Your task to perform on an android device: Go to Yahoo.com Image 0: 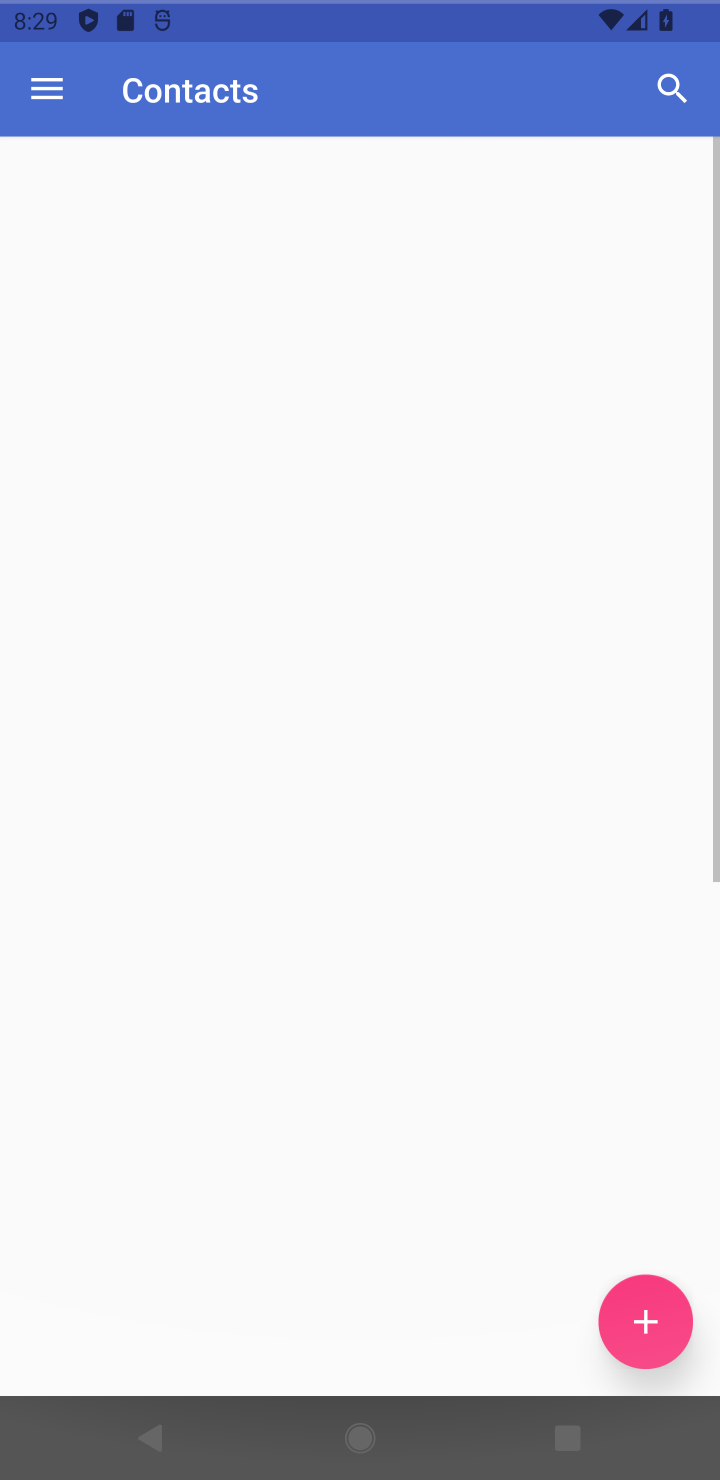
Step 0: press home button
Your task to perform on an android device: Go to Yahoo.com Image 1: 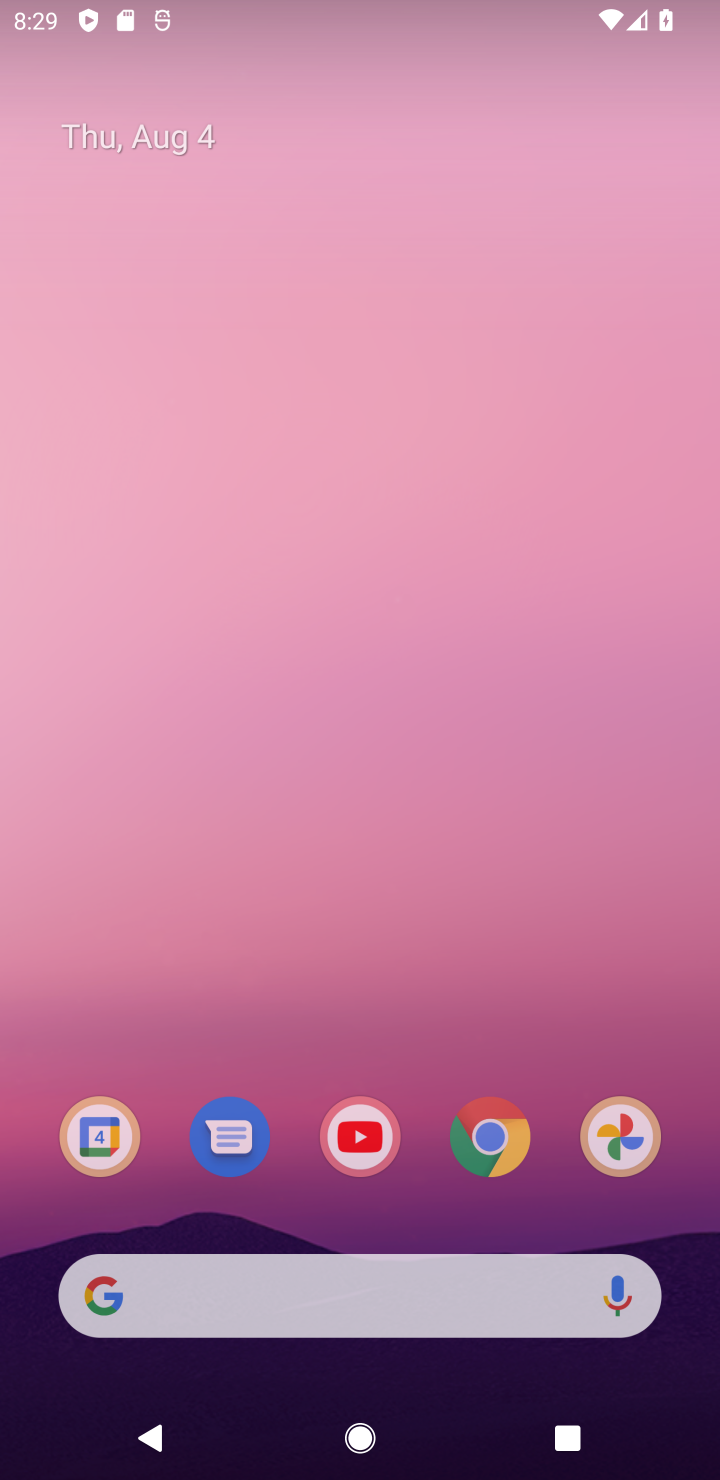
Step 1: press home button
Your task to perform on an android device: Go to Yahoo.com Image 2: 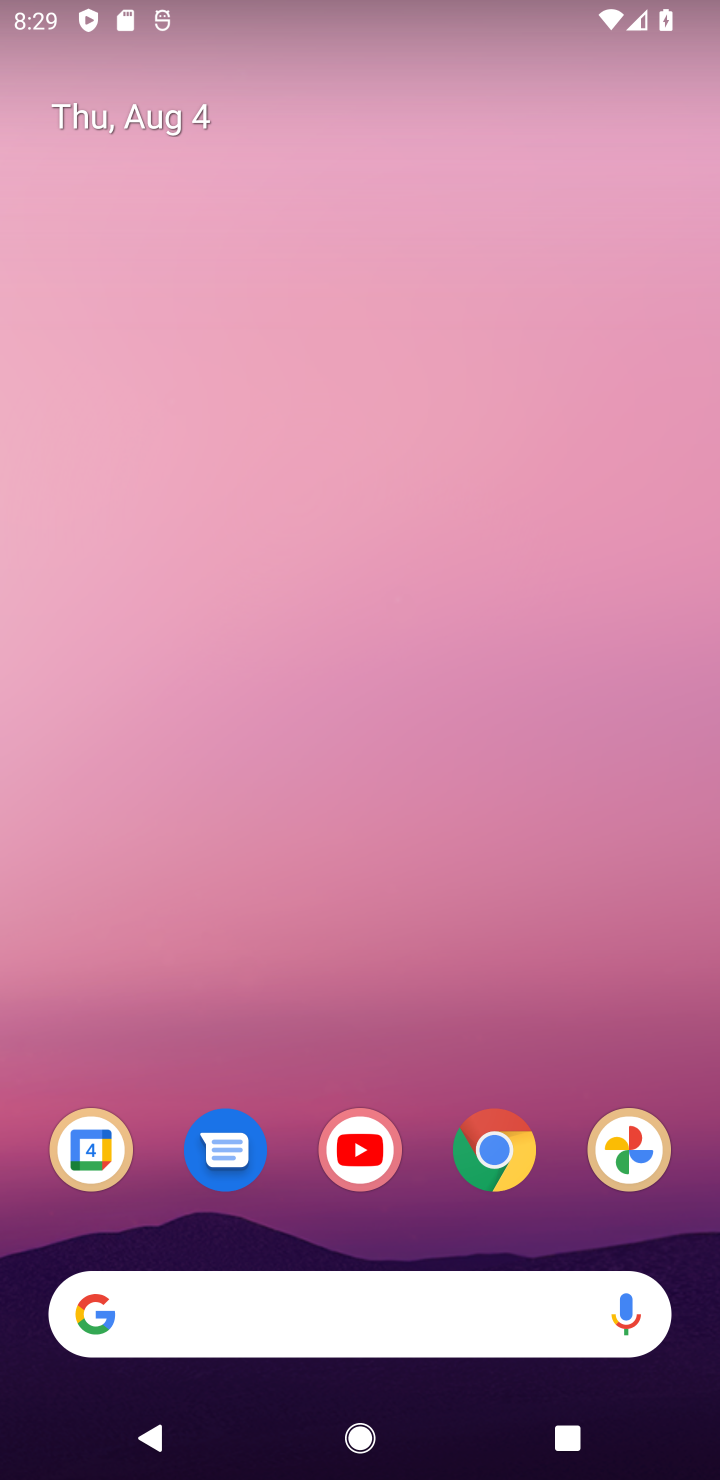
Step 2: drag from (404, 1203) to (370, 4)
Your task to perform on an android device: Go to Yahoo.com Image 3: 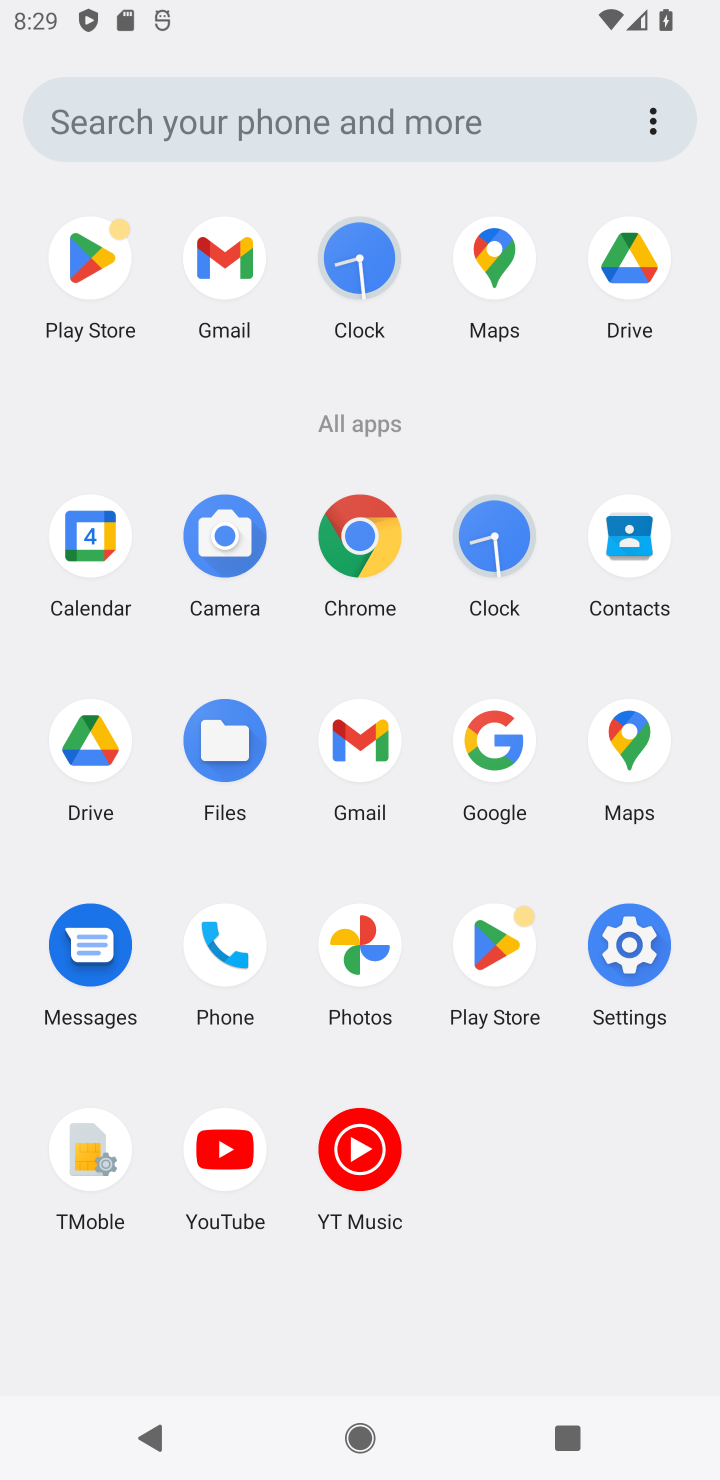
Step 3: click (342, 557)
Your task to perform on an android device: Go to Yahoo.com Image 4: 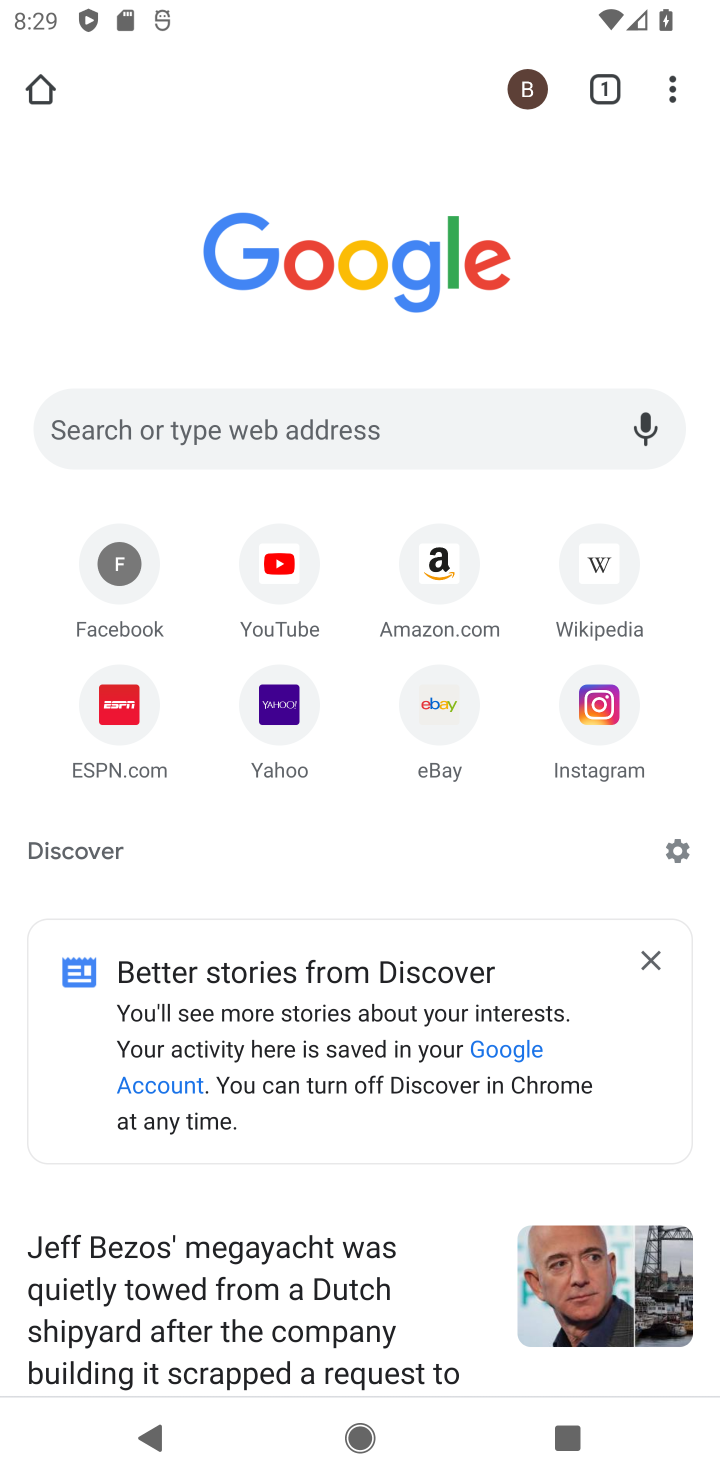
Step 4: click (265, 732)
Your task to perform on an android device: Go to Yahoo.com Image 5: 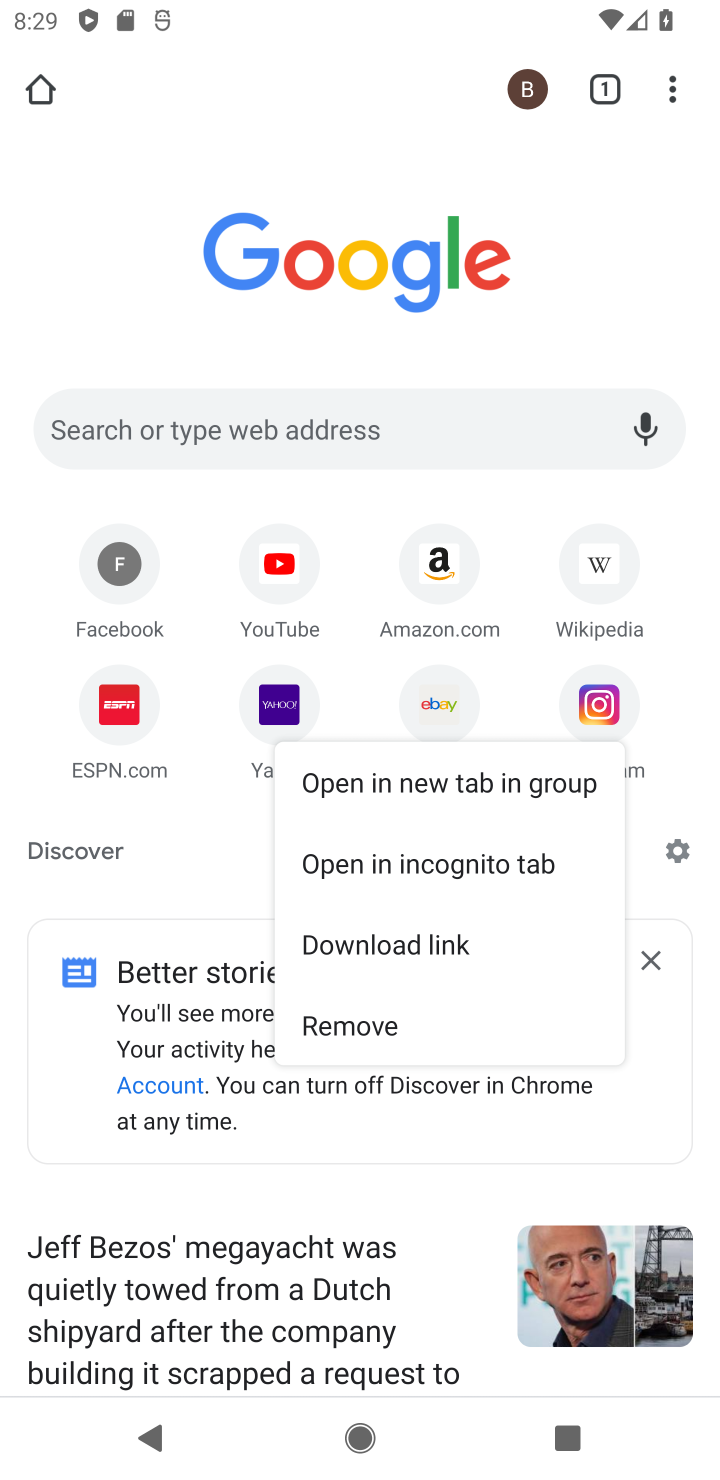
Step 5: click (268, 691)
Your task to perform on an android device: Go to Yahoo.com Image 6: 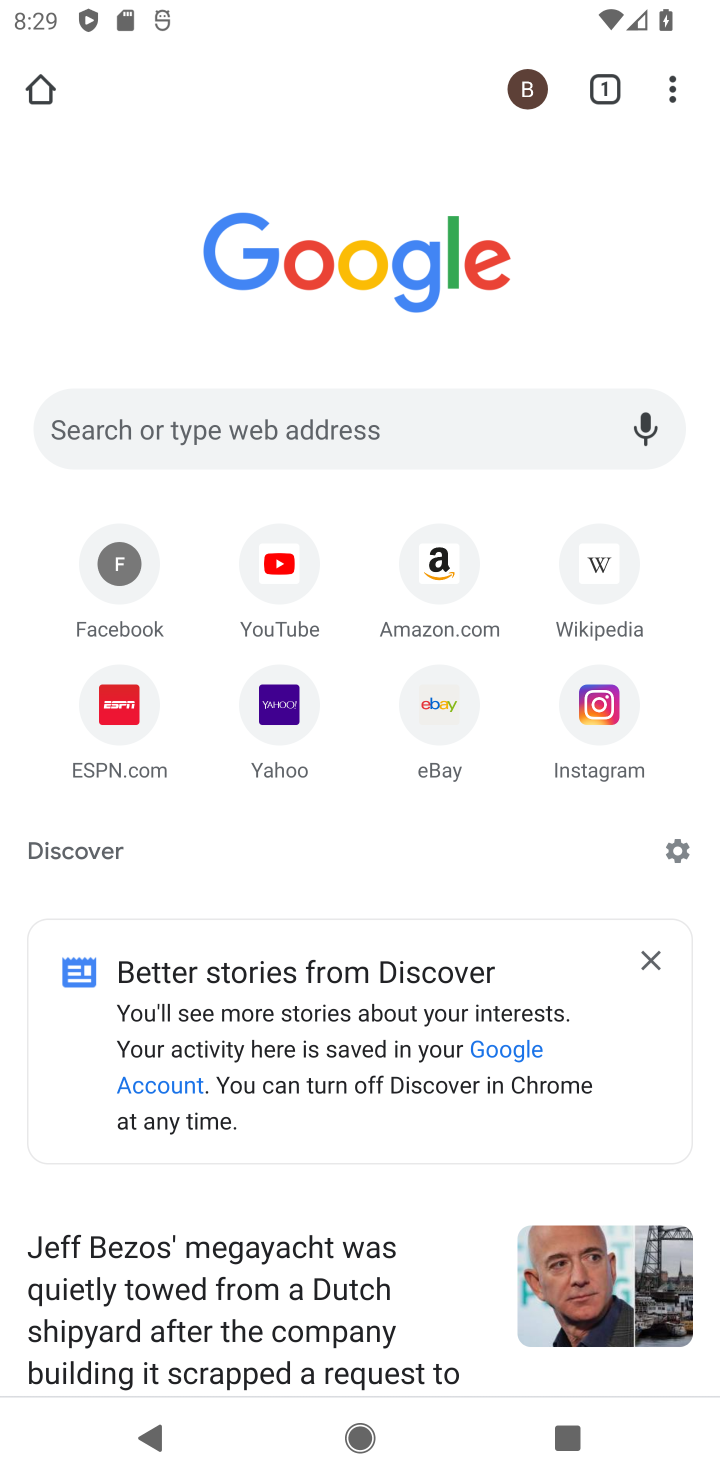
Step 6: click (306, 713)
Your task to perform on an android device: Go to Yahoo.com Image 7: 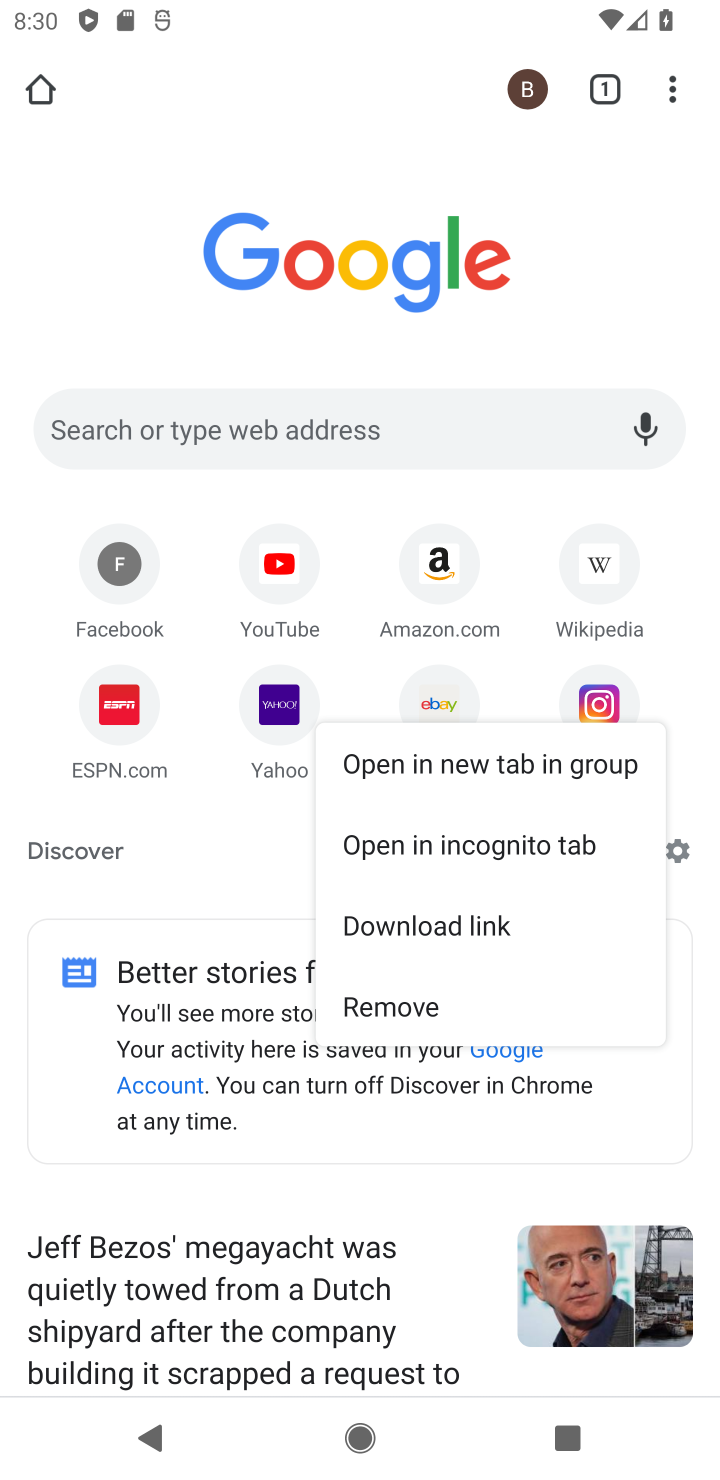
Step 7: click (291, 690)
Your task to perform on an android device: Go to Yahoo.com Image 8: 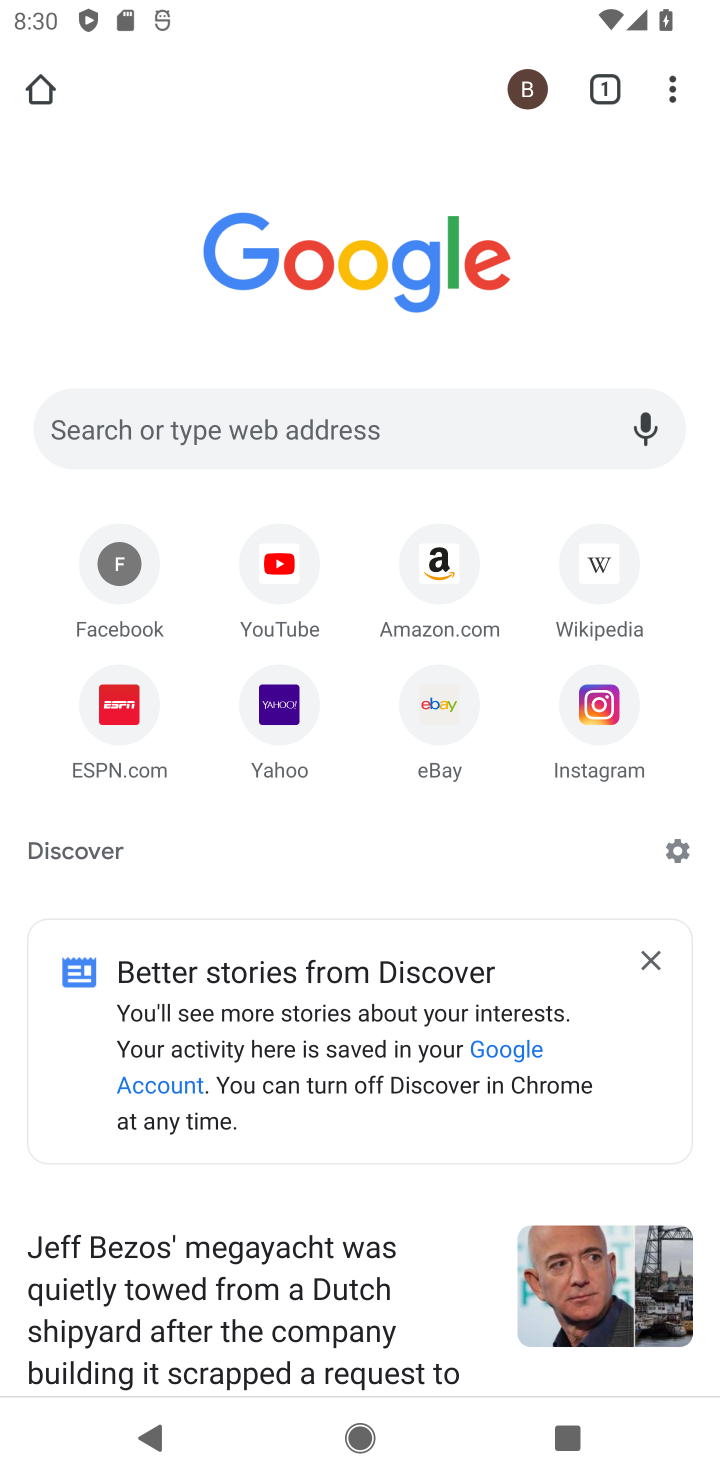
Step 8: click (295, 736)
Your task to perform on an android device: Go to Yahoo.com Image 9: 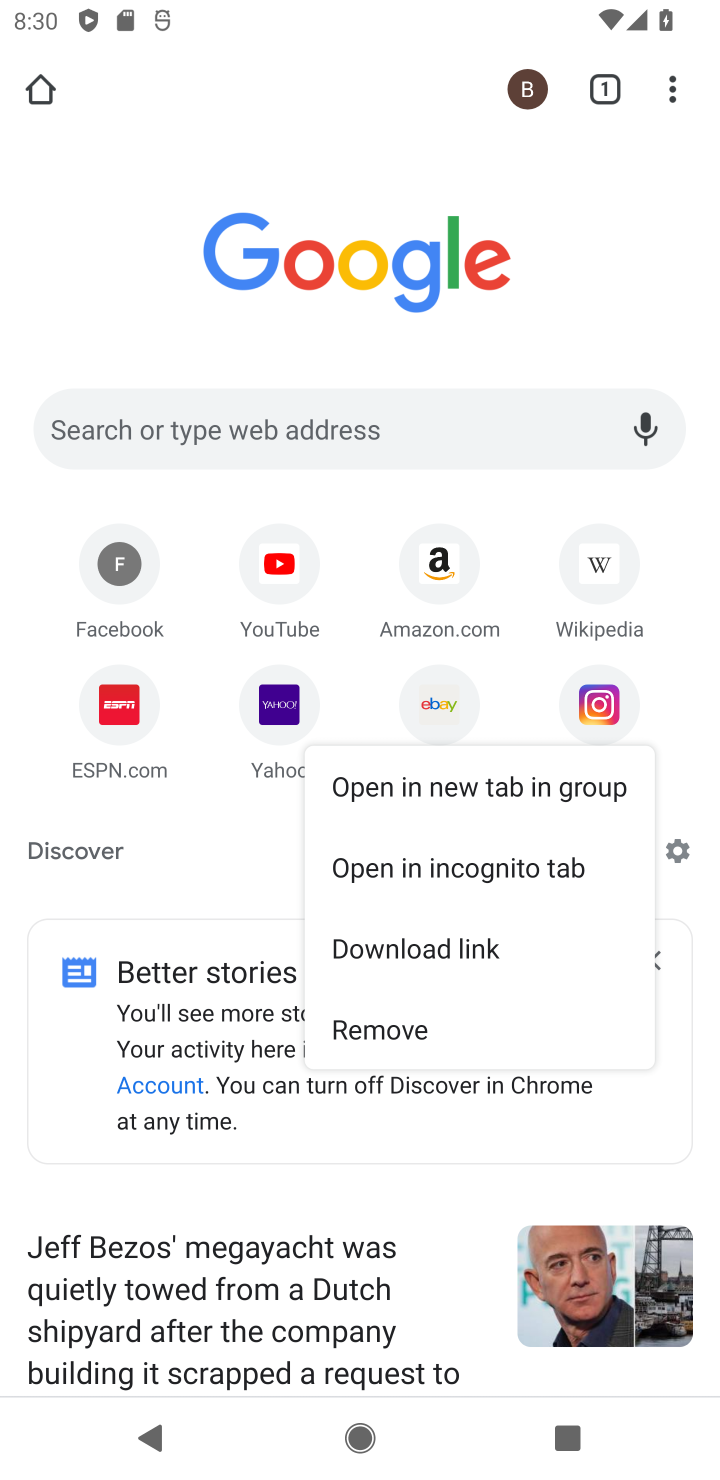
Step 9: task complete